Your task to perform on an android device: find snoozed emails in the gmail app Image 0: 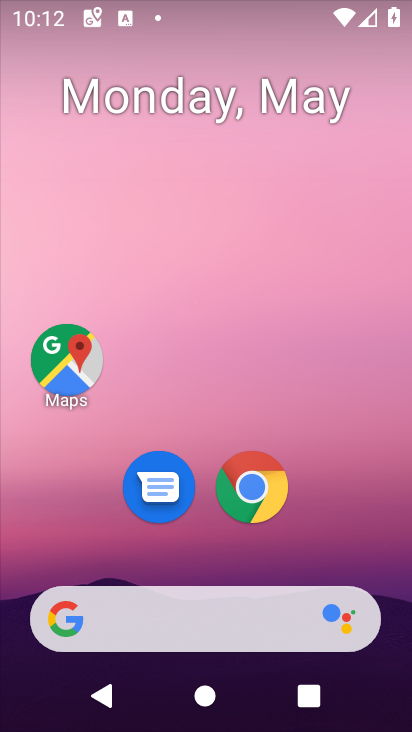
Step 0: drag from (196, 542) to (208, 115)
Your task to perform on an android device: find snoozed emails in the gmail app Image 1: 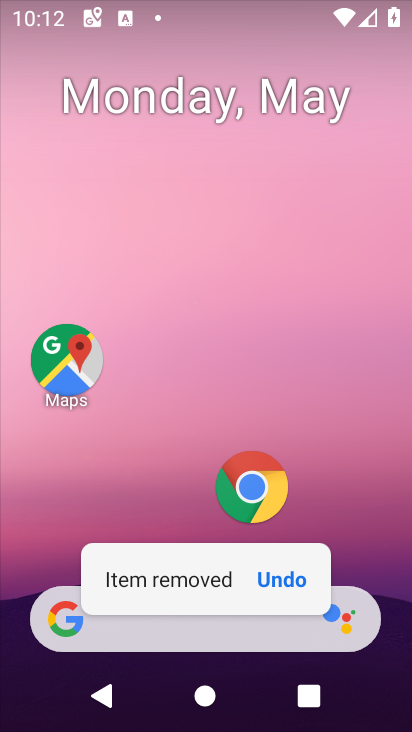
Step 1: click (264, 574)
Your task to perform on an android device: find snoozed emails in the gmail app Image 2: 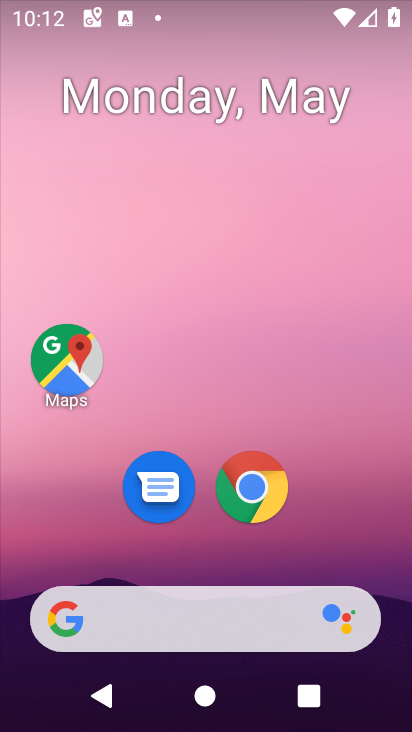
Step 2: drag from (195, 560) to (177, 108)
Your task to perform on an android device: find snoozed emails in the gmail app Image 3: 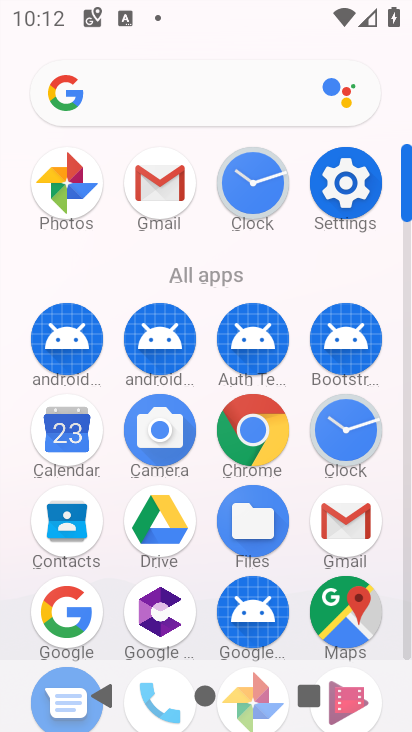
Step 3: click (343, 530)
Your task to perform on an android device: find snoozed emails in the gmail app Image 4: 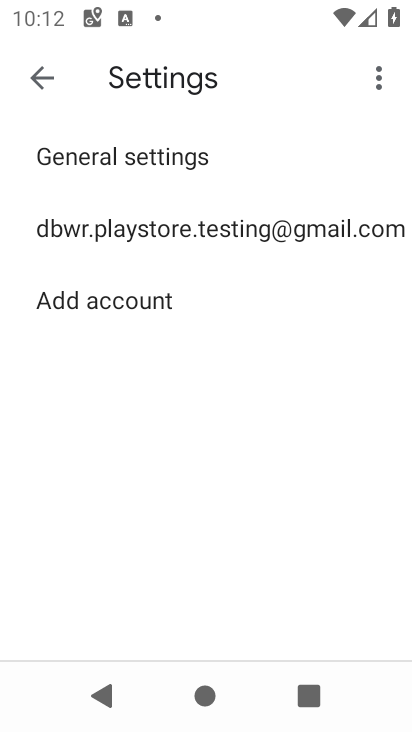
Step 4: click (50, 84)
Your task to perform on an android device: find snoozed emails in the gmail app Image 5: 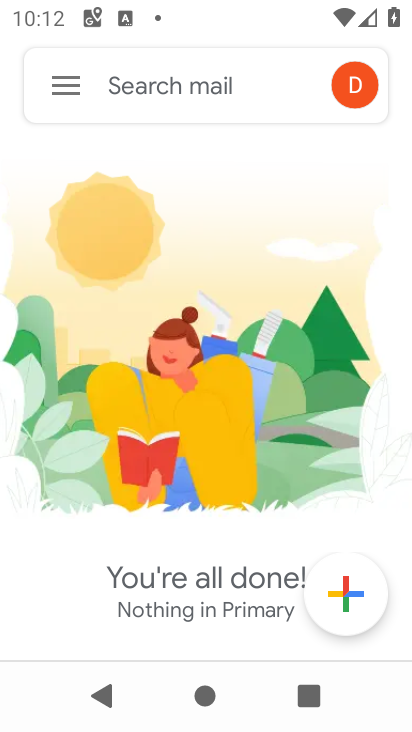
Step 5: click (50, 84)
Your task to perform on an android device: find snoozed emails in the gmail app Image 6: 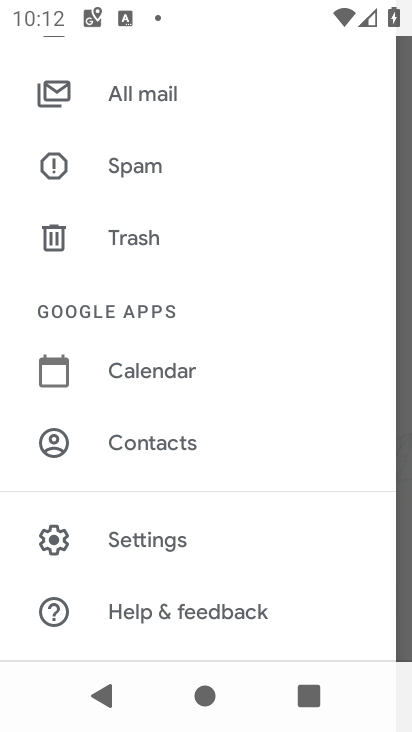
Step 6: drag from (212, 143) to (252, 588)
Your task to perform on an android device: find snoozed emails in the gmail app Image 7: 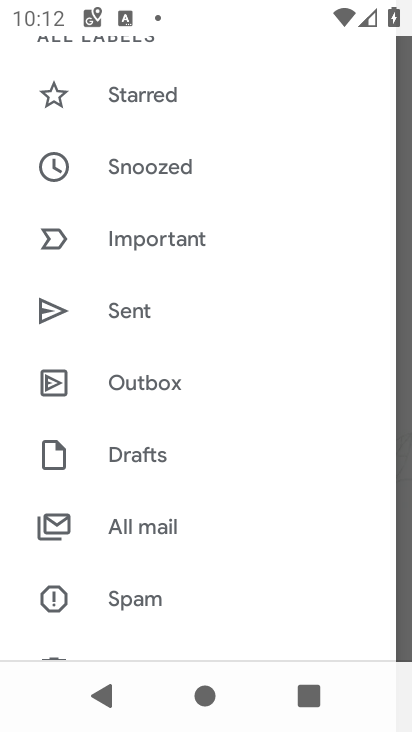
Step 7: click (148, 168)
Your task to perform on an android device: find snoozed emails in the gmail app Image 8: 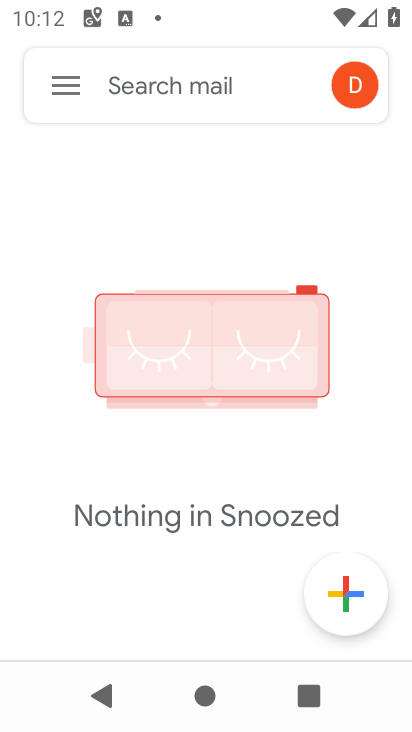
Step 8: task complete